Your task to perform on an android device: Open privacy settings Image 0: 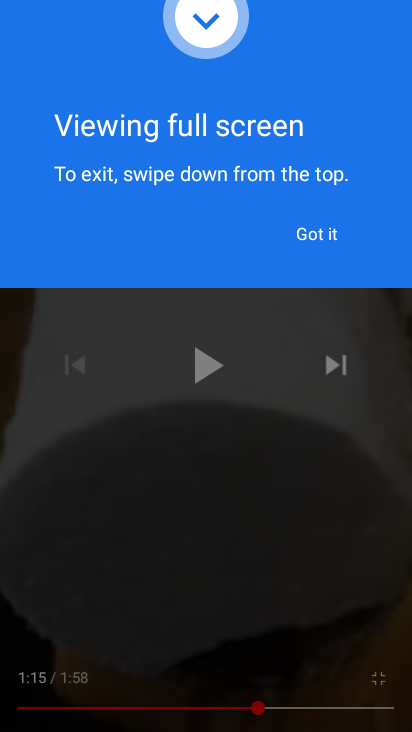
Step 0: press home button
Your task to perform on an android device: Open privacy settings Image 1: 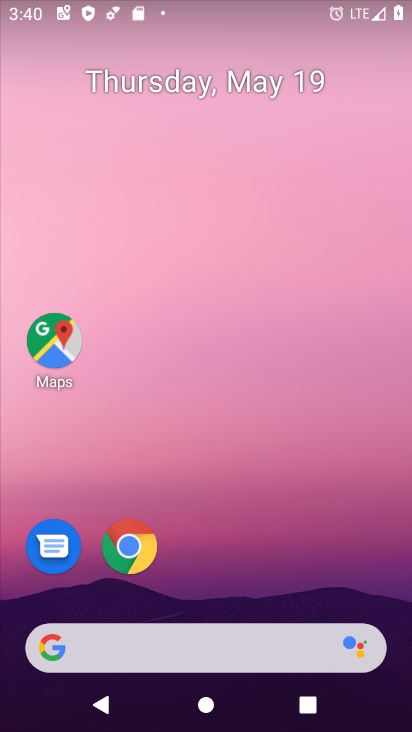
Step 1: drag from (204, 601) to (236, 185)
Your task to perform on an android device: Open privacy settings Image 2: 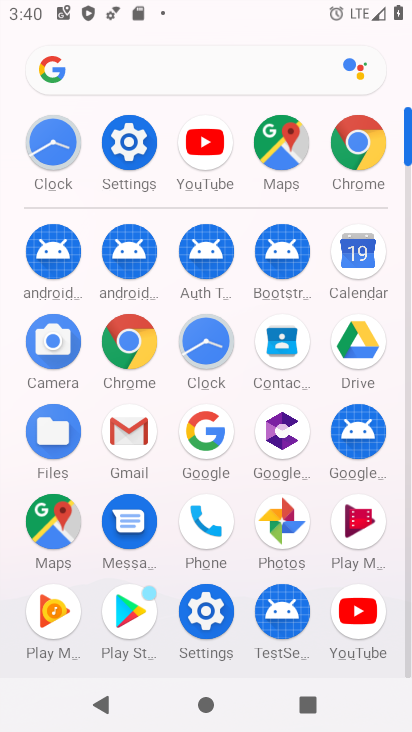
Step 2: click (126, 133)
Your task to perform on an android device: Open privacy settings Image 3: 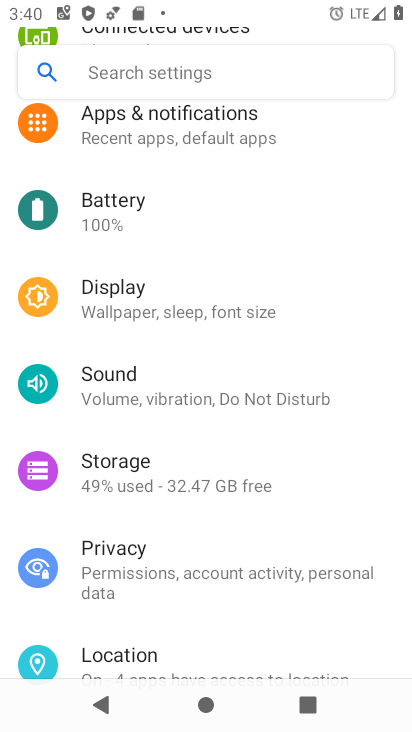
Step 3: click (156, 553)
Your task to perform on an android device: Open privacy settings Image 4: 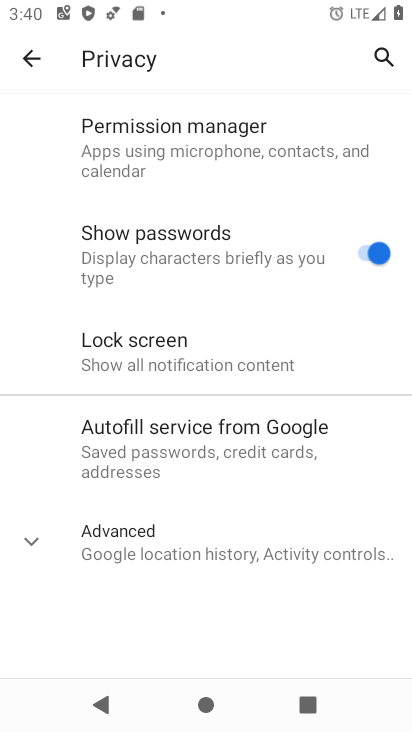
Step 4: click (35, 540)
Your task to perform on an android device: Open privacy settings Image 5: 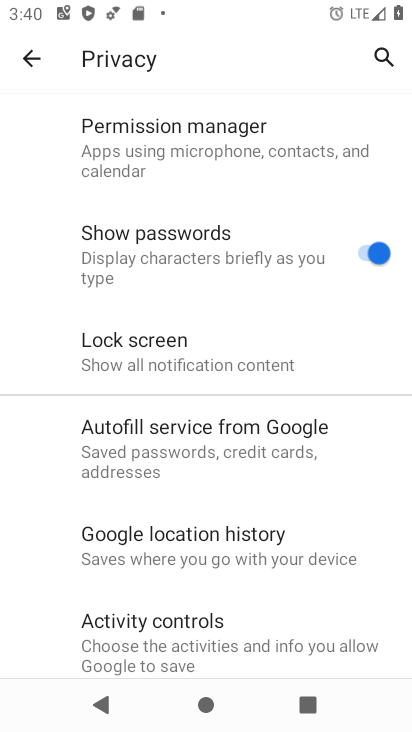
Step 5: task complete